Your task to perform on an android device: Open the calendar app, open the side menu, and click the "Day" option Image 0: 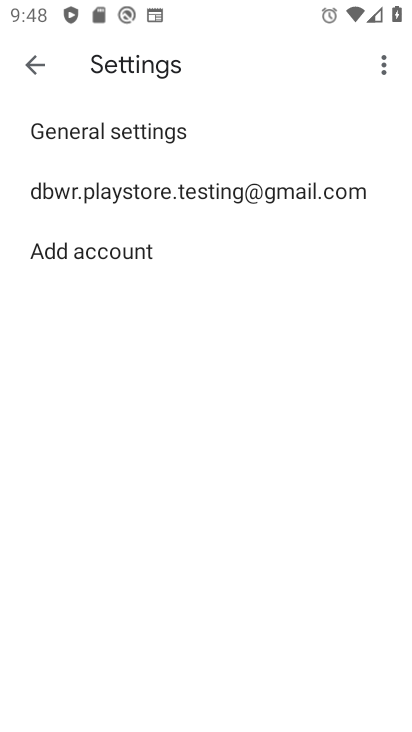
Step 0: press home button
Your task to perform on an android device: Open the calendar app, open the side menu, and click the "Day" option Image 1: 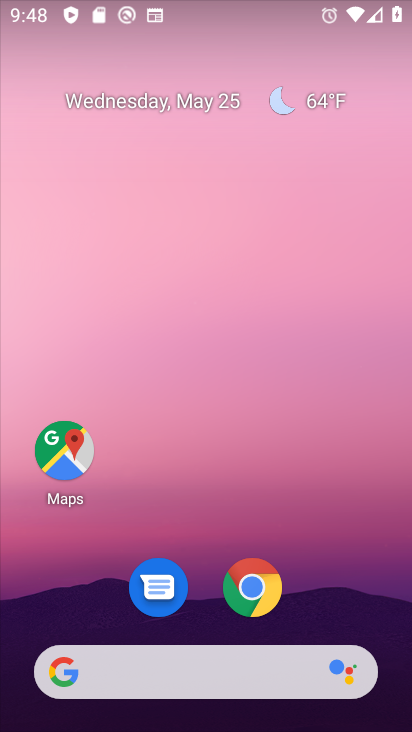
Step 1: drag from (69, 625) to (186, 182)
Your task to perform on an android device: Open the calendar app, open the side menu, and click the "Day" option Image 2: 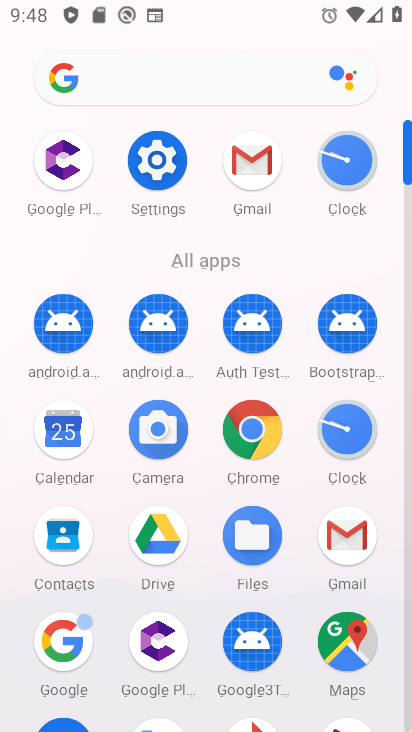
Step 2: drag from (165, 595) to (228, 422)
Your task to perform on an android device: Open the calendar app, open the side menu, and click the "Day" option Image 3: 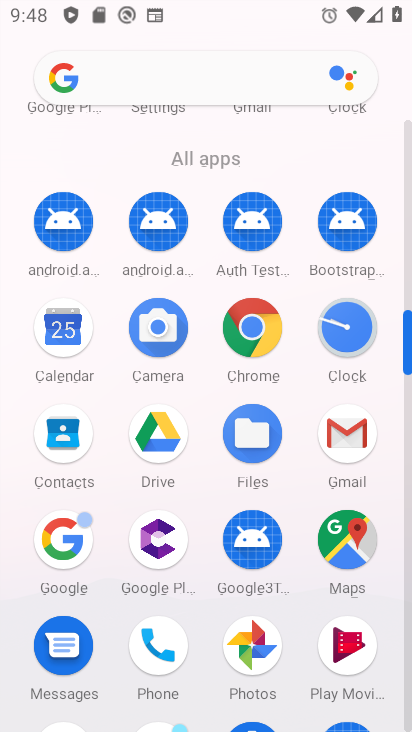
Step 3: click (71, 344)
Your task to perform on an android device: Open the calendar app, open the side menu, and click the "Day" option Image 4: 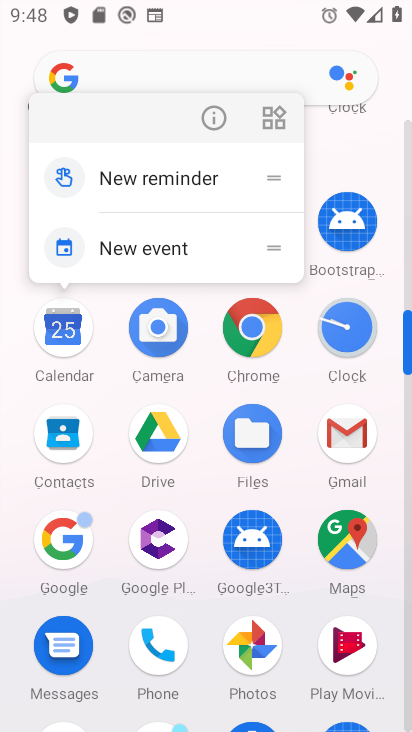
Step 4: click (71, 340)
Your task to perform on an android device: Open the calendar app, open the side menu, and click the "Day" option Image 5: 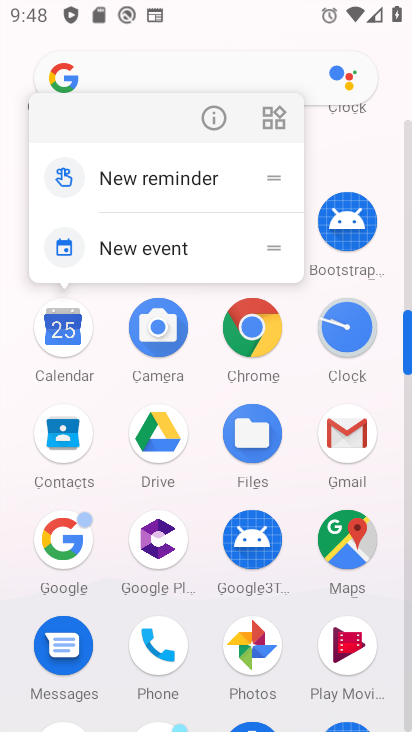
Step 5: click (76, 360)
Your task to perform on an android device: Open the calendar app, open the side menu, and click the "Day" option Image 6: 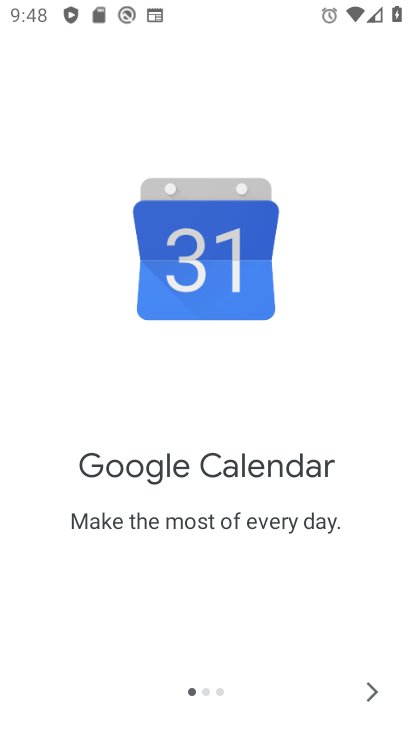
Step 6: click (368, 701)
Your task to perform on an android device: Open the calendar app, open the side menu, and click the "Day" option Image 7: 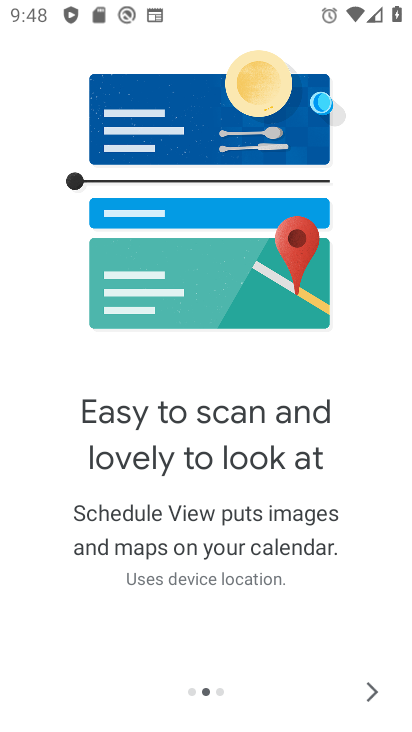
Step 7: click (368, 700)
Your task to perform on an android device: Open the calendar app, open the side menu, and click the "Day" option Image 8: 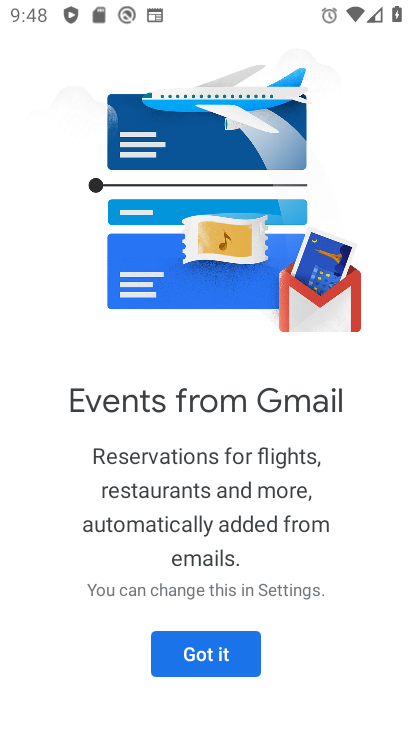
Step 8: click (196, 684)
Your task to perform on an android device: Open the calendar app, open the side menu, and click the "Day" option Image 9: 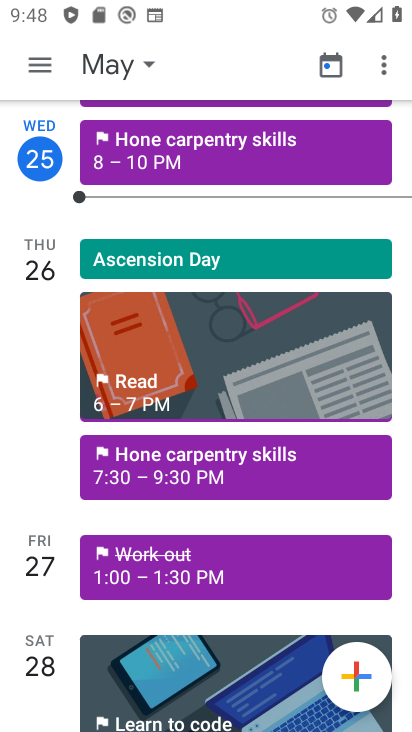
Step 9: click (51, 70)
Your task to perform on an android device: Open the calendar app, open the side menu, and click the "Day" option Image 10: 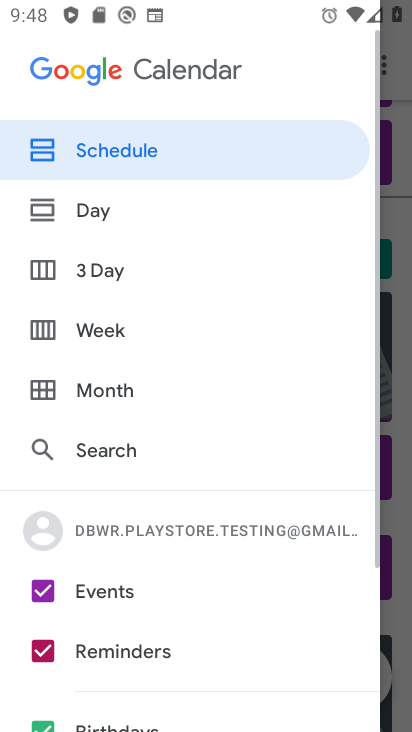
Step 10: click (152, 210)
Your task to perform on an android device: Open the calendar app, open the side menu, and click the "Day" option Image 11: 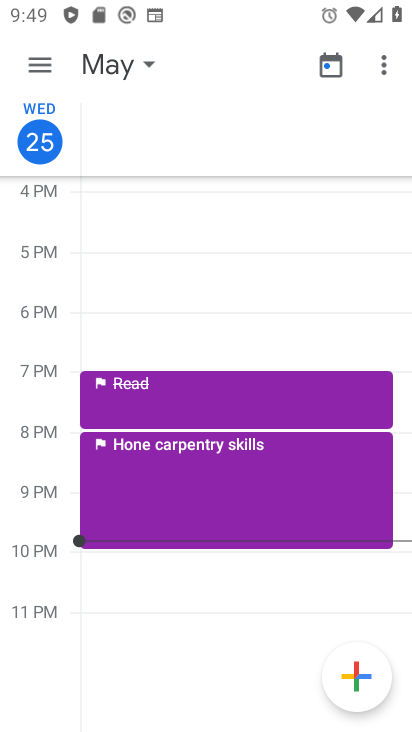
Step 11: task complete